Your task to perform on an android device: toggle data saver in the chrome app Image 0: 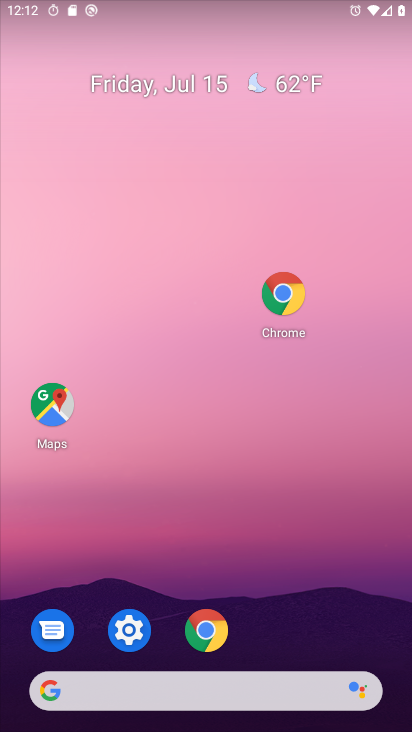
Step 0: drag from (246, 642) to (165, 56)
Your task to perform on an android device: toggle data saver in the chrome app Image 1: 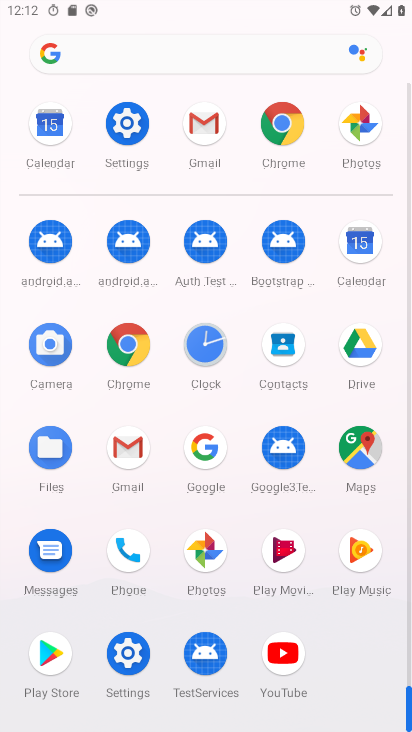
Step 1: click (118, 347)
Your task to perform on an android device: toggle data saver in the chrome app Image 2: 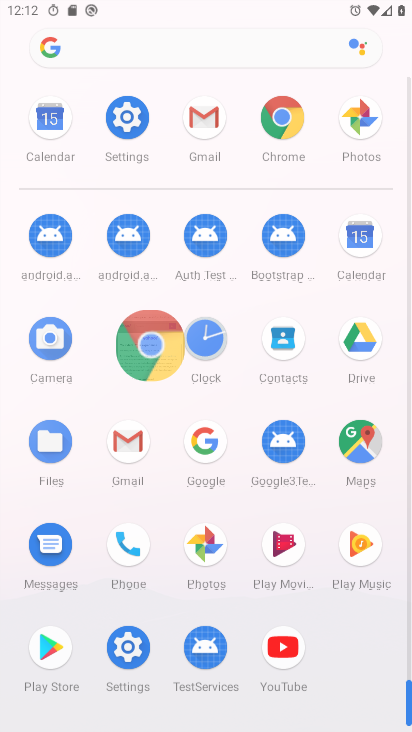
Step 2: click (118, 347)
Your task to perform on an android device: toggle data saver in the chrome app Image 3: 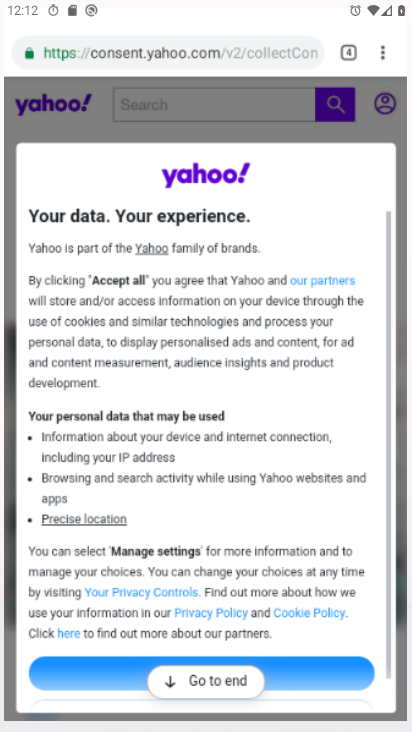
Step 3: click (118, 347)
Your task to perform on an android device: toggle data saver in the chrome app Image 4: 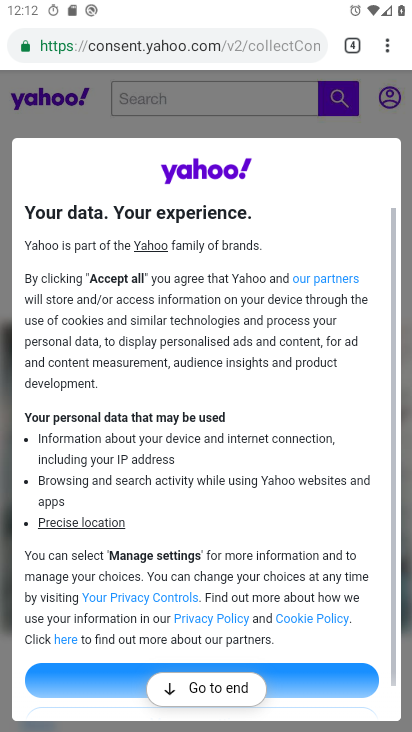
Step 4: drag from (384, 51) to (222, 582)
Your task to perform on an android device: toggle data saver in the chrome app Image 5: 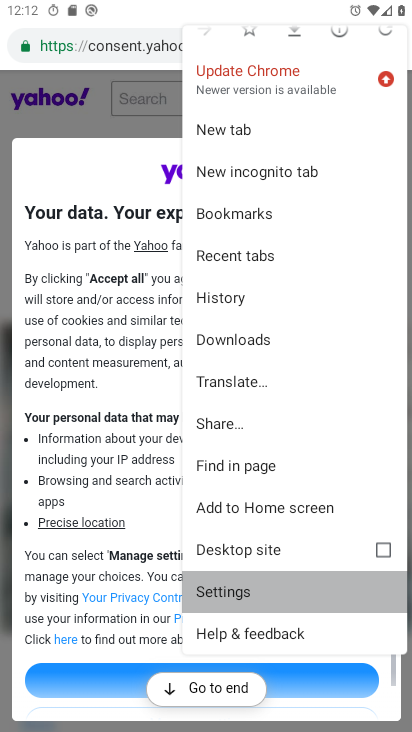
Step 5: click (222, 582)
Your task to perform on an android device: toggle data saver in the chrome app Image 6: 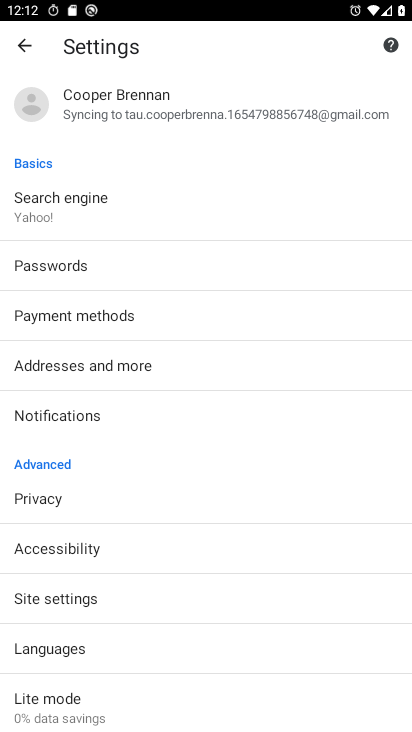
Step 6: drag from (89, 510) to (88, 161)
Your task to perform on an android device: toggle data saver in the chrome app Image 7: 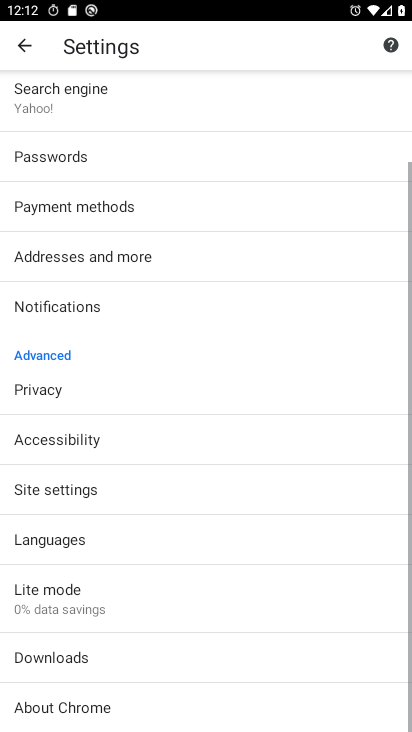
Step 7: drag from (67, 545) to (81, 196)
Your task to perform on an android device: toggle data saver in the chrome app Image 8: 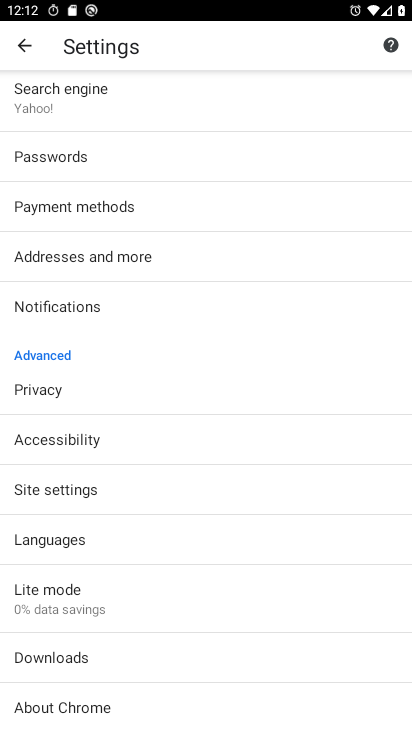
Step 8: click (47, 604)
Your task to perform on an android device: toggle data saver in the chrome app Image 9: 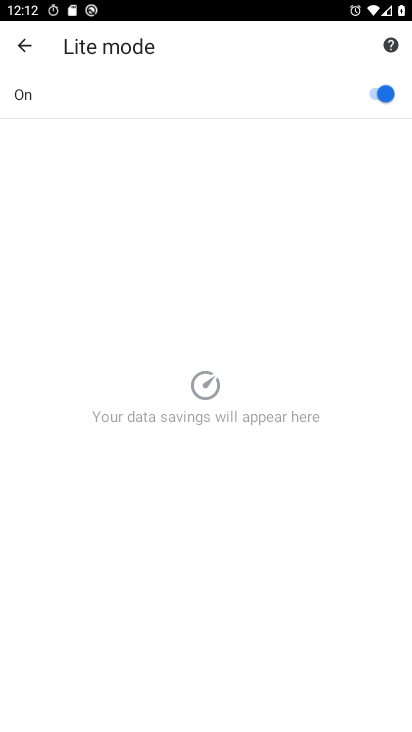
Step 9: click (47, 602)
Your task to perform on an android device: toggle data saver in the chrome app Image 10: 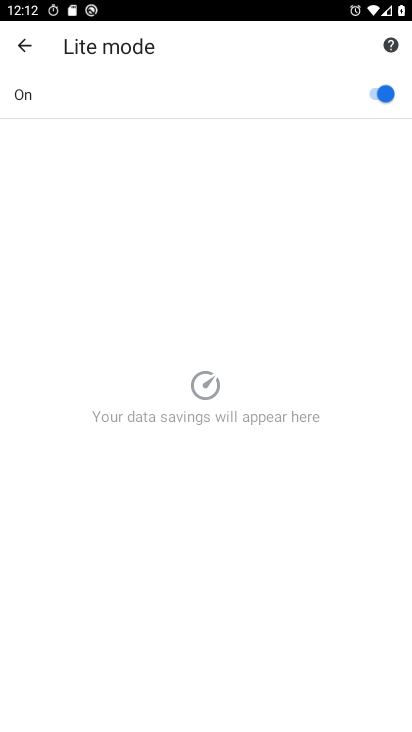
Step 10: click (52, 602)
Your task to perform on an android device: toggle data saver in the chrome app Image 11: 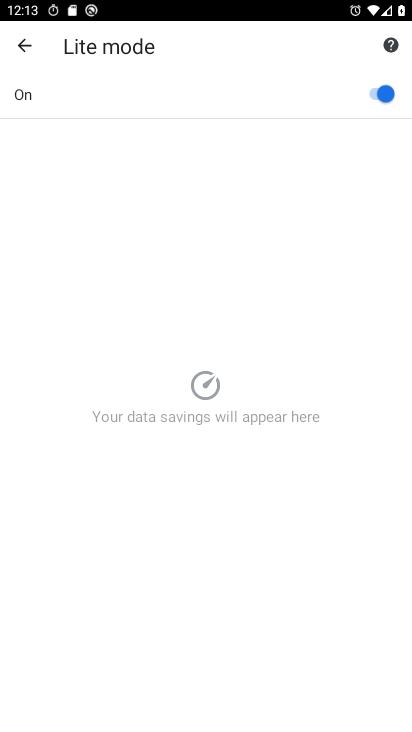
Step 11: click (384, 91)
Your task to perform on an android device: toggle data saver in the chrome app Image 12: 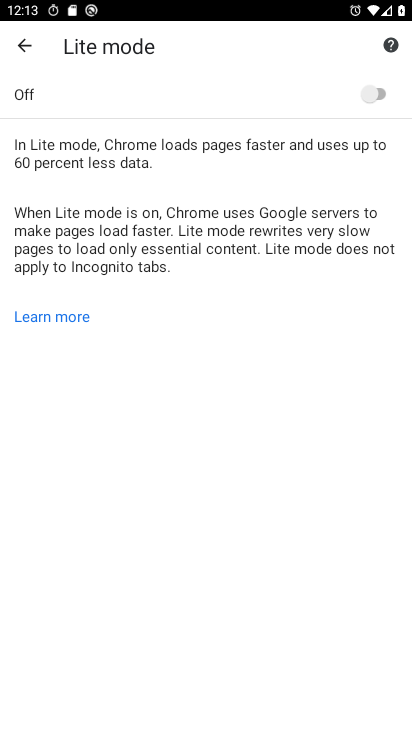
Step 12: task complete